Your task to perform on an android device: Do I have any events today? Image 0: 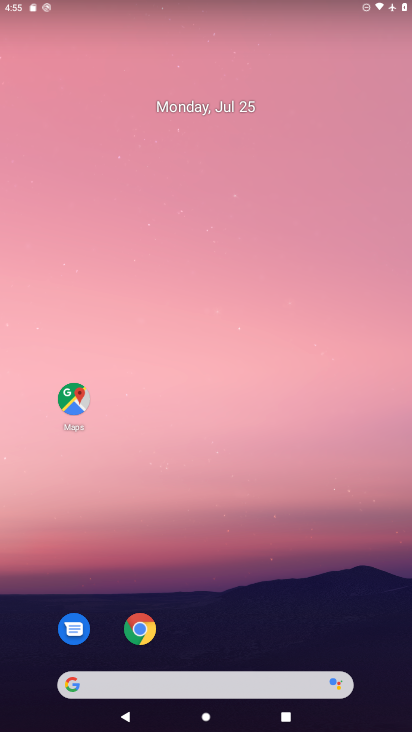
Step 0: drag from (235, 707) to (270, 2)
Your task to perform on an android device: Do I have any events today? Image 1: 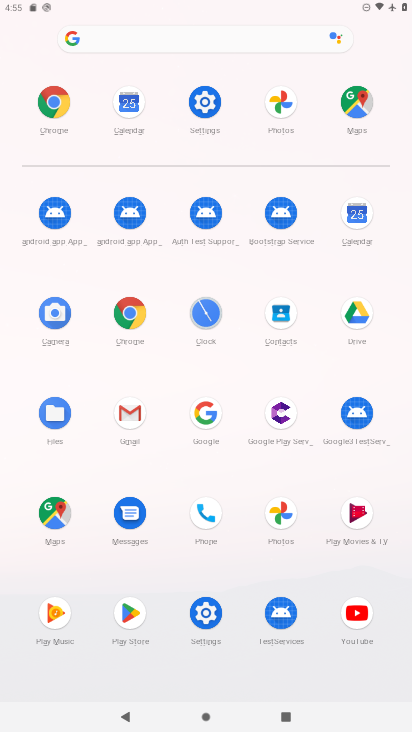
Step 1: click (354, 211)
Your task to perform on an android device: Do I have any events today? Image 2: 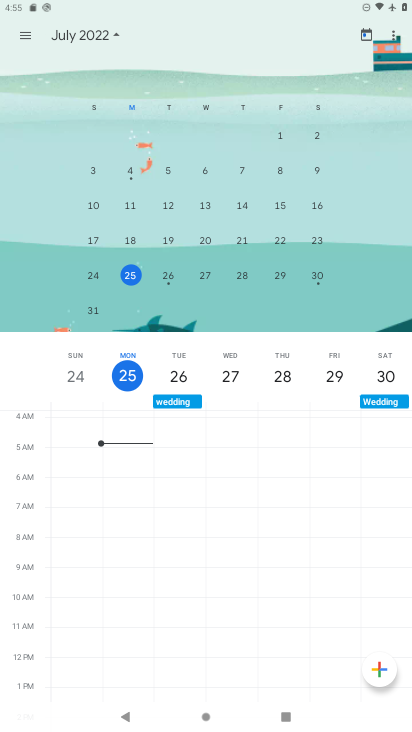
Step 2: click (122, 273)
Your task to perform on an android device: Do I have any events today? Image 3: 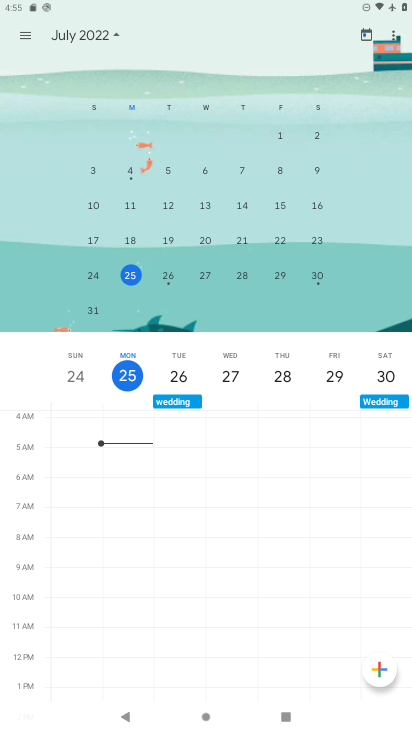
Step 3: task complete